Your task to perform on an android device: Search for pizza restaurants on Maps Image 0: 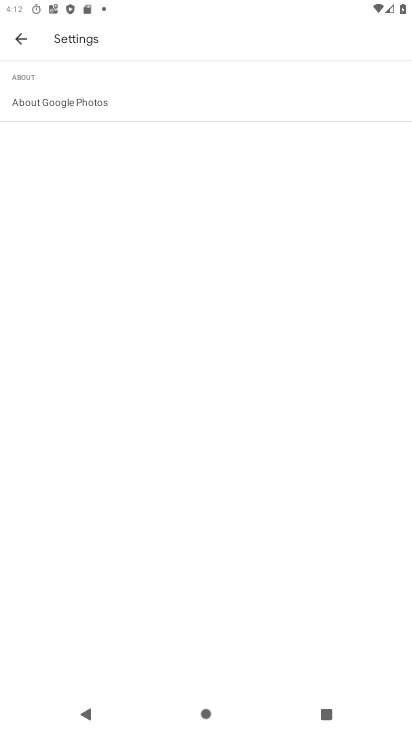
Step 0: press home button
Your task to perform on an android device: Search for pizza restaurants on Maps Image 1: 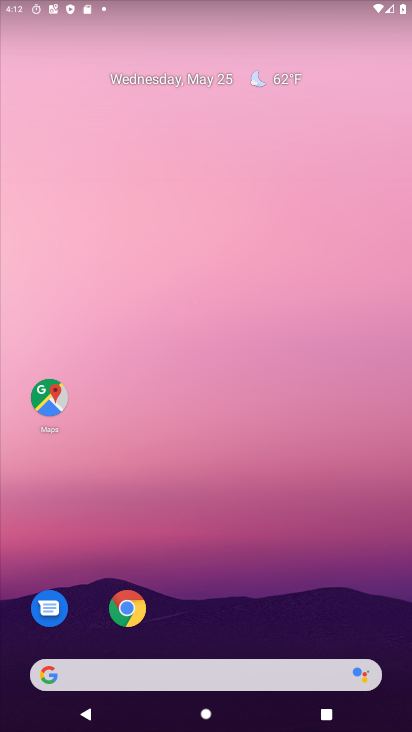
Step 1: click (48, 395)
Your task to perform on an android device: Search for pizza restaurants on Maps Image 2: 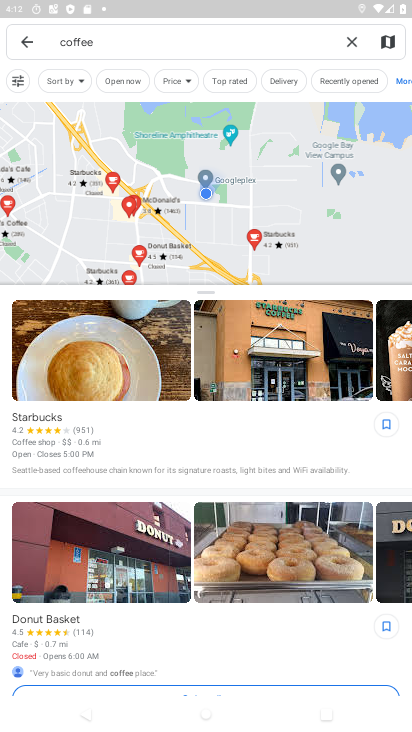
Step 2: click (355, 41)
Your task to perform on an android device: Search for pizza restaurants on Maps Image 3: 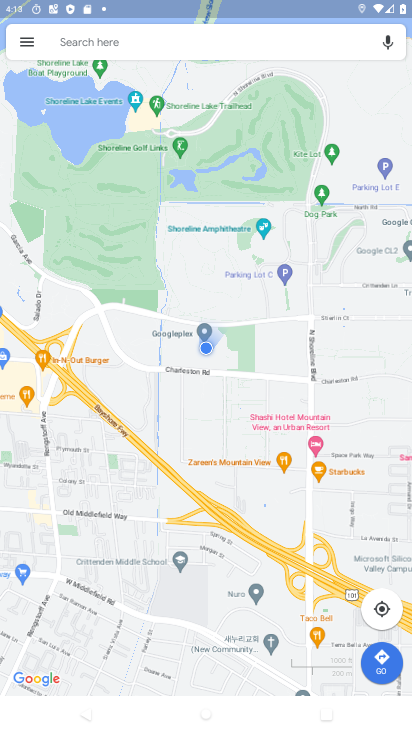
Step 3: click (228, 39)
Your task to perform on an android device: Search for pizza restaurants on Maps Image 4: 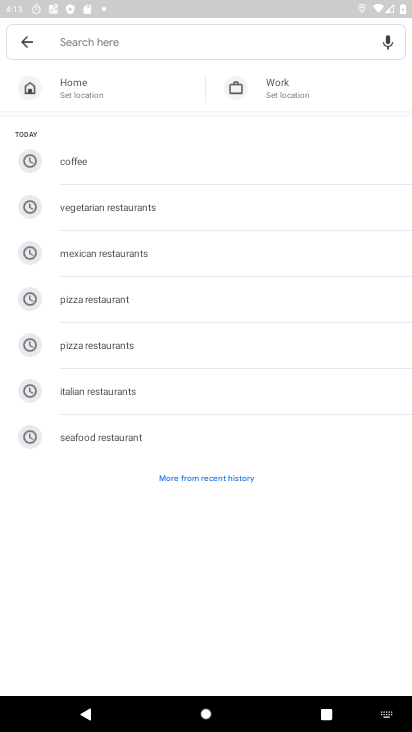
Step 4: type "pizza restayrants"
Your task to perform on an android device: Search for pizza restaurants on Maps Image 5: 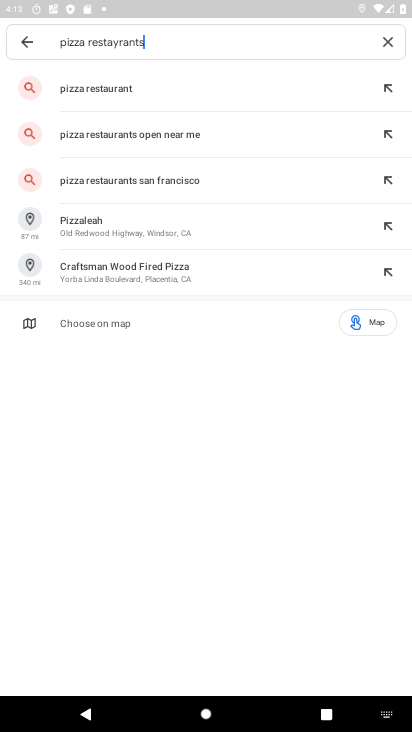
Step 5: click (125, 97)
Your task to perform on an android device: Search for pizza restaurants on Maps Image 6: 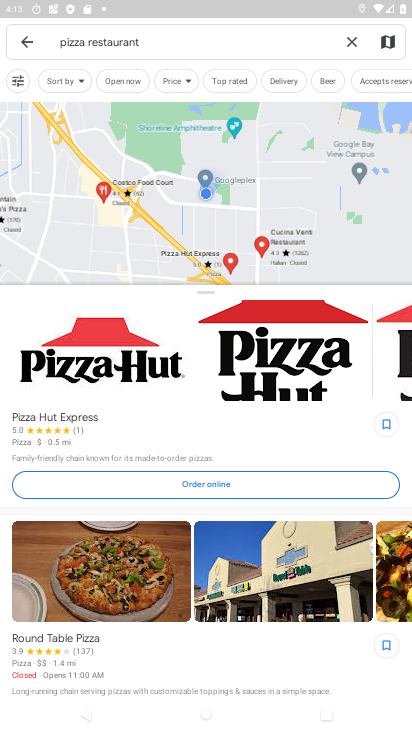
Step 6: task complete